Your task to perform on an android device: find photos in the google photos app Image 0: 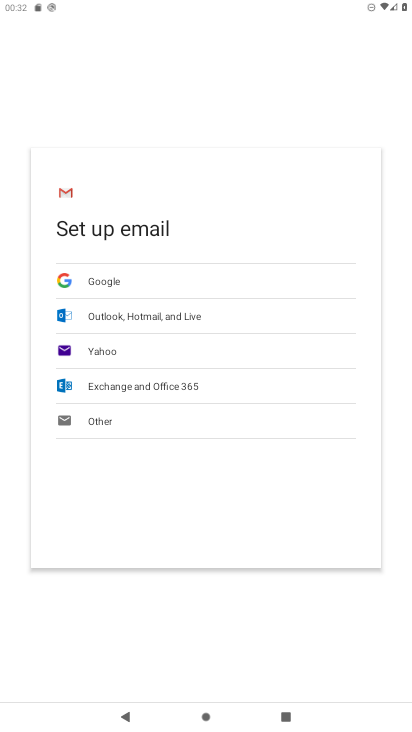
Step 0: press home button
Your task to perform on an android device: find photos in the google photos app Image 1: 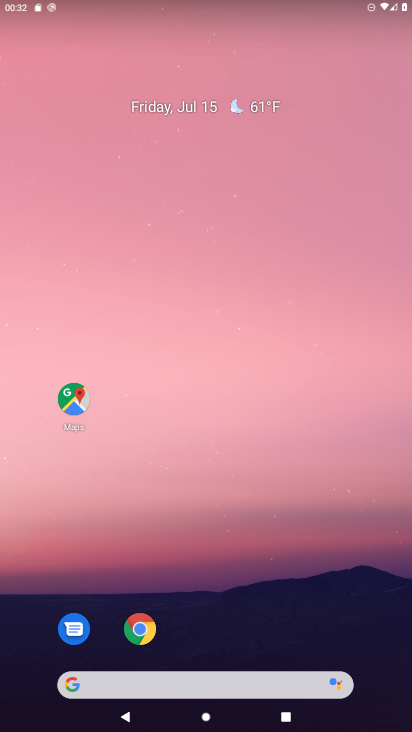
Step 1: drag from (200, 636) to (227, 137)
Your task to perform on an android device: find photos in the google photos app Image 2: 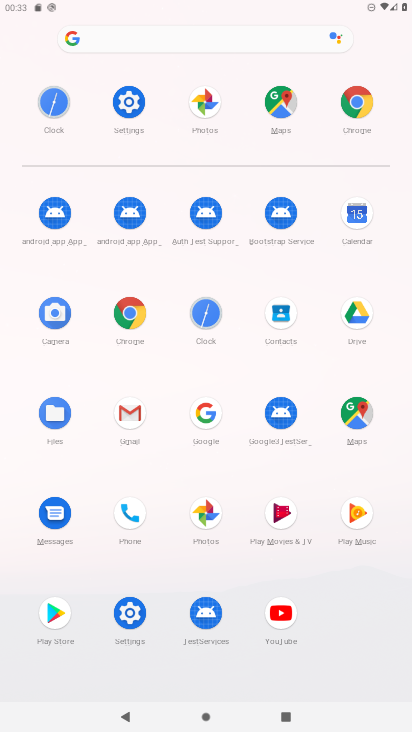
Step 2: click (198, 112)
Your task to perform on an android device: find photos in the google photos app Image 3: 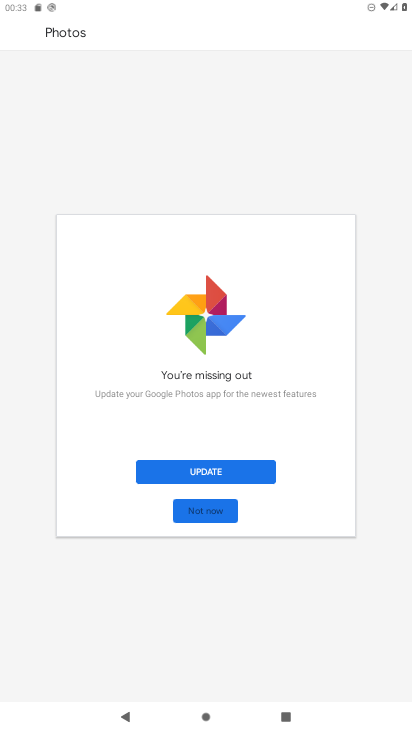
Step 3: click (210, 519)
Your task to perform on an android device: find photos in the google photos app Image 4: 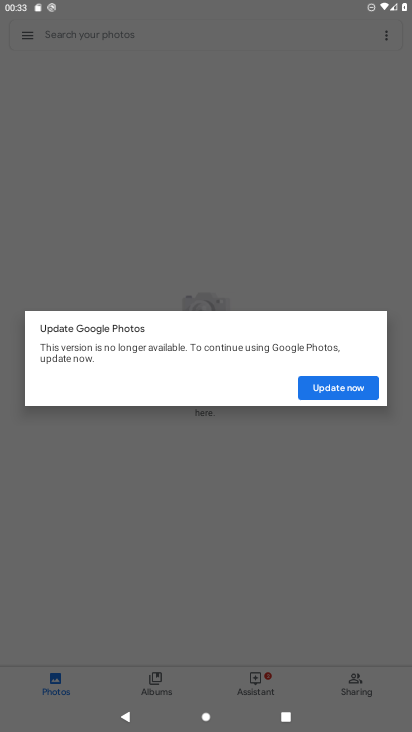
Step 4: click (351, 391)
Your task to perform on an android device: find photos in the google photos app Image 5: 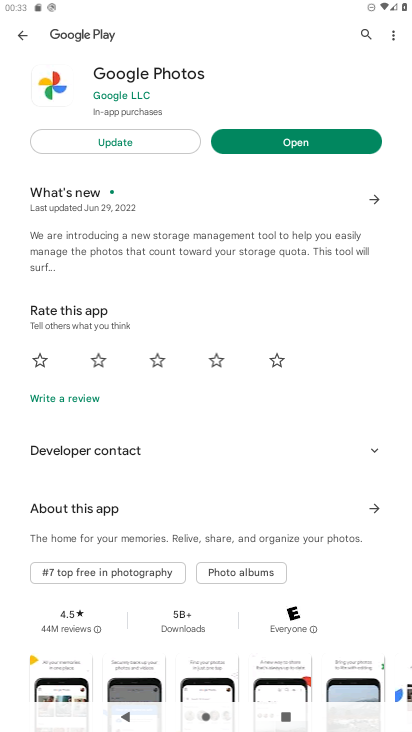
Step 5: click (253, 131)
Your task to perform on an android device: find photos in the google photos app Image 6: 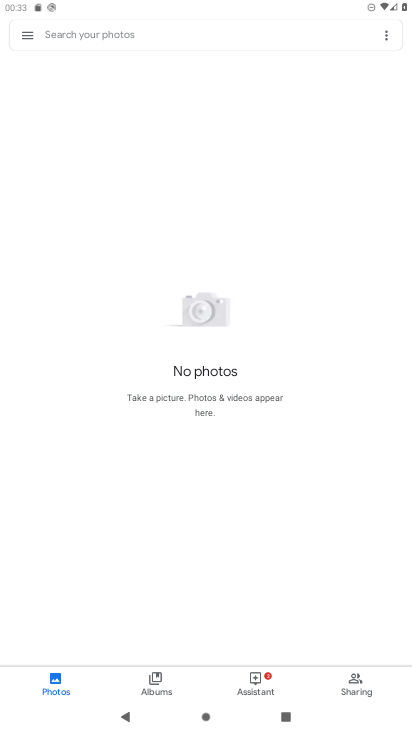
Step 6: task complete